Your task to perform on an android device: turn on location history Image 0: 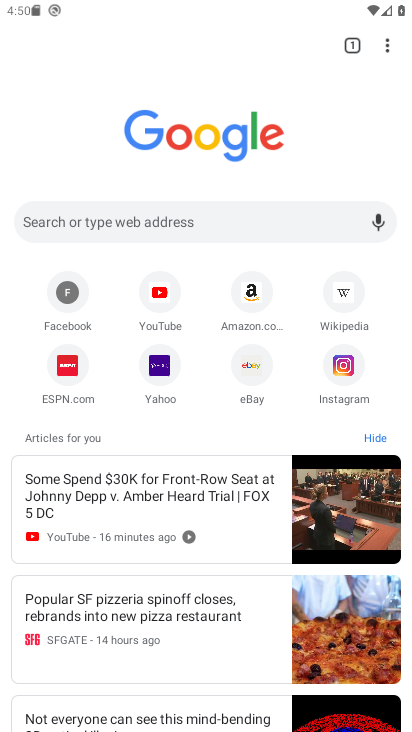
Step 0: press back button
Your task to perform on an android device: turn on location history Image 1: 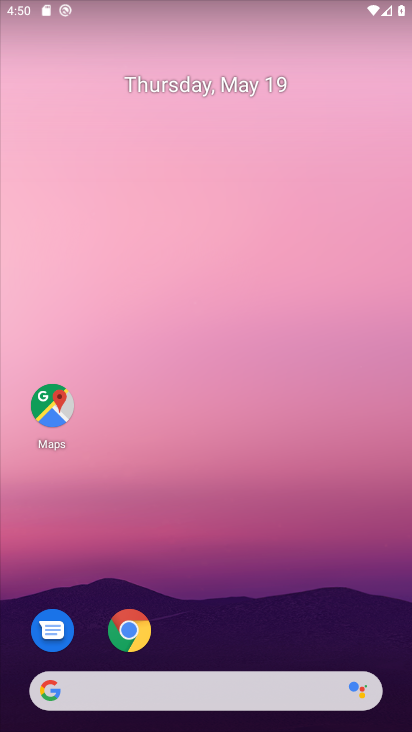
Step 1: drag from (271, 567) to (274, 52)
Your task to perform on an android device: turn on location history Image 2: 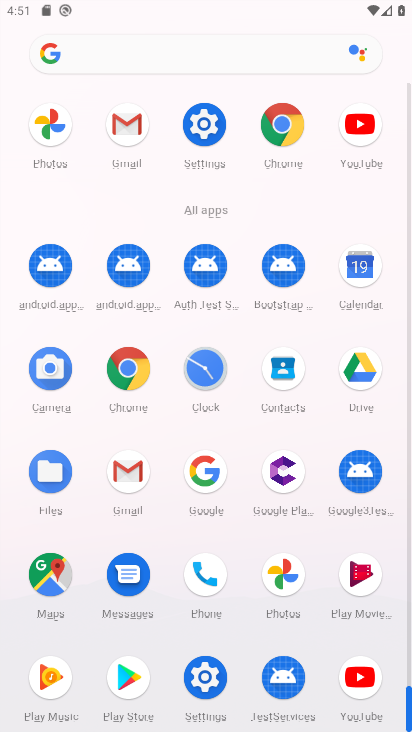
Step 2: drag from (5, 559) to (29, 186)
Your task to perform on an android device: turn on location history Image 3: 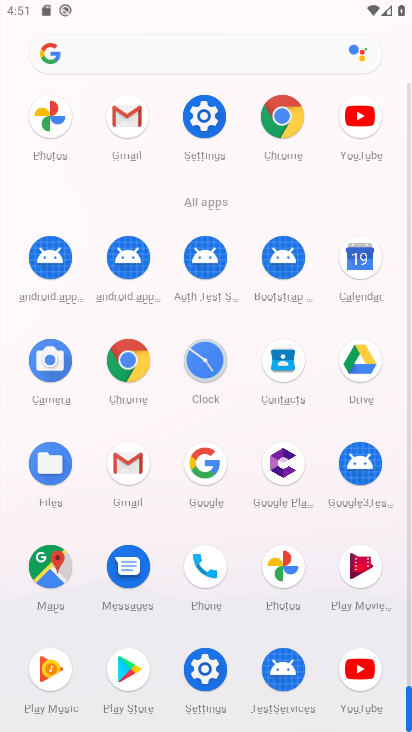
Step 3: click (205, 668)
Your task to perform on an android device: turn on location history Image 4: 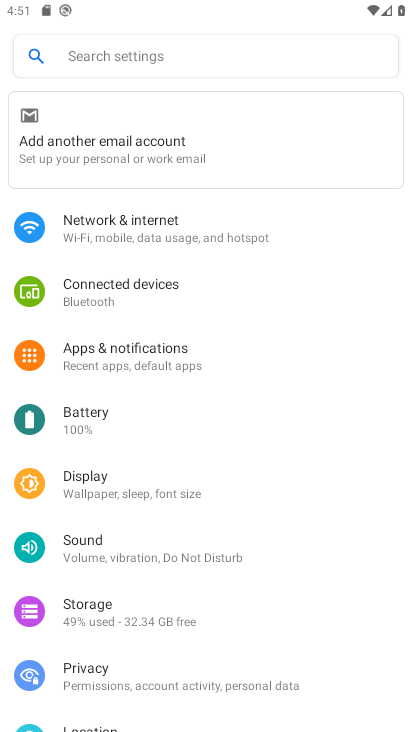
Step 4: drag from (247, 432) to (258, 203)
Your task to perform on an android device: turn on location history Image 5: 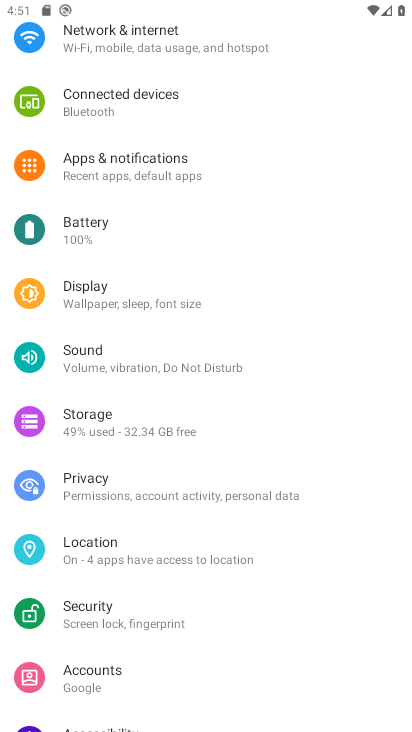
Step 5: click (128, 545)
Your task to perform on an android device: turn on location history Image 6: 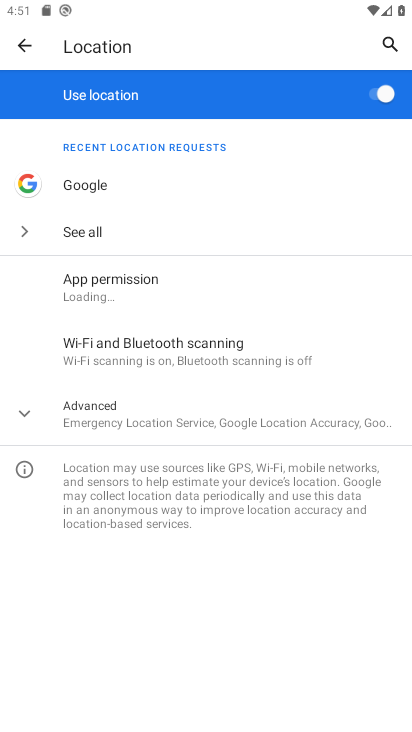
Step 6: click (127, 410)
Your task to perform on an android device: turn on location history Image 7: 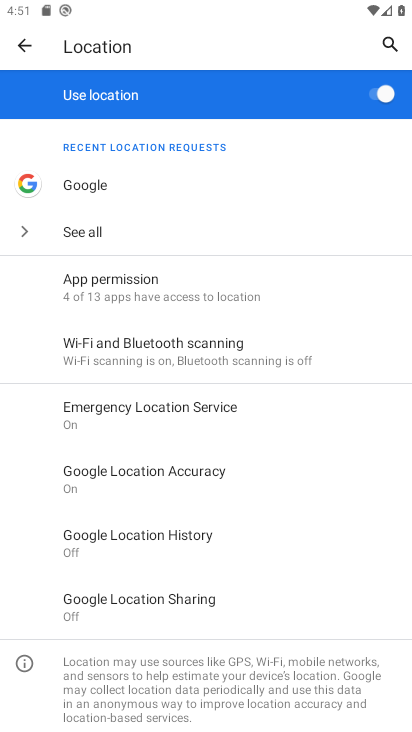
Step 7: click (200, 532)
Your task to perform on an android device: turn on location history Image 8: 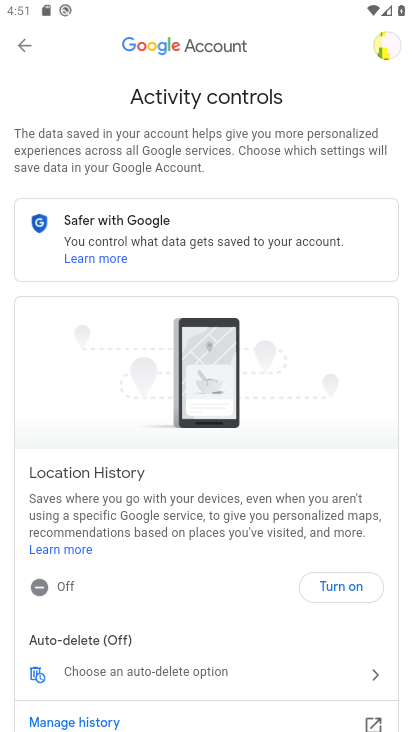
Step 8: drag from (238, 455) to (270, 131)
Your task to perform on an android device: turn on location history Image 9: 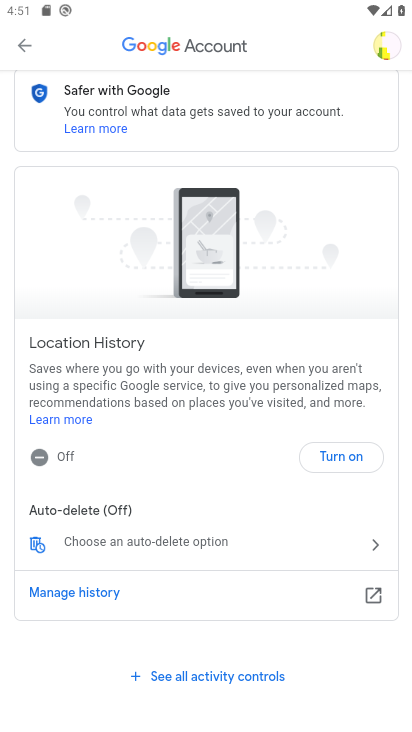
Step 9: drag from (273, 528) to (272, 232)
Your task to perform on an android device: turn on location history Image 10: 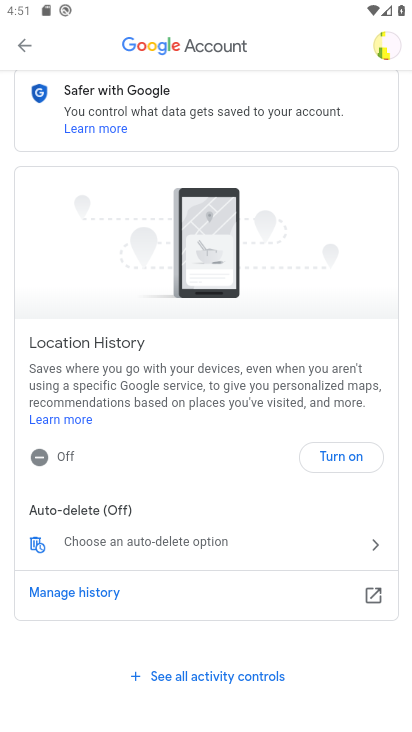
Step 10: click (335, 455)
Your task to perform on an android device: turn on location history Image 11: 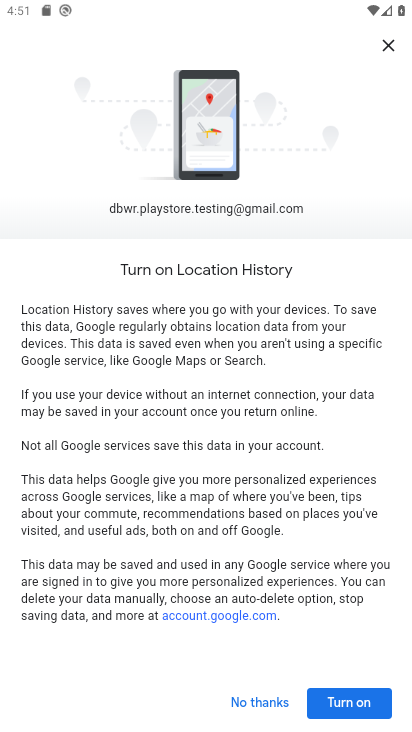
Step 11: drag from (226, 445) to (235, 199)
Your task to perform on an android device: turn on location history Image 12: 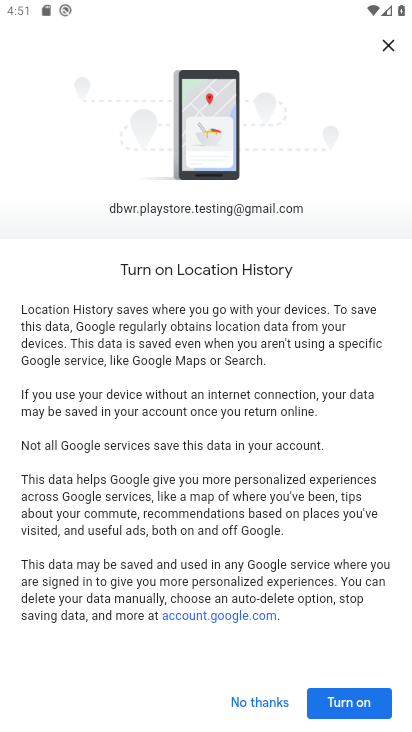
Step 12: click (332, 715)
Your task to perform on an android device: turn on location history Image 13: 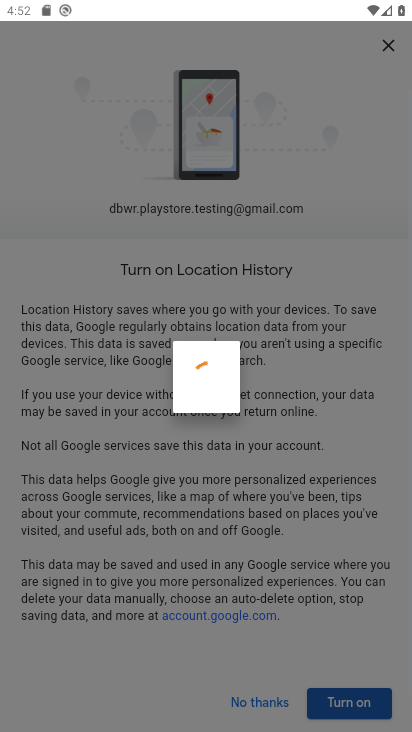
Step 13: click (341, 701)
Your task to perform on an android device: turn on location history Image 14: 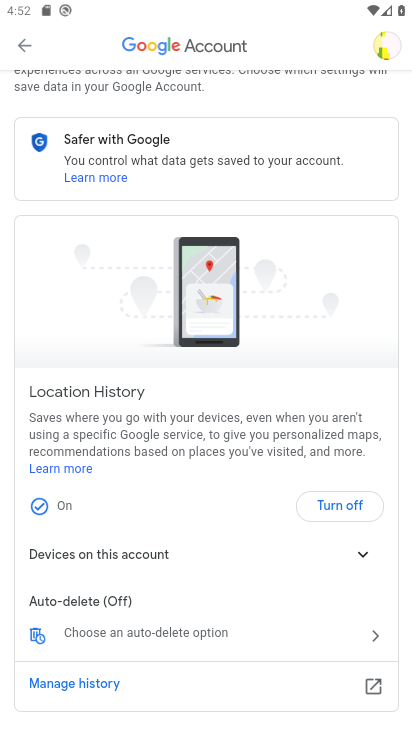
Step 14: task complete